Your task to perform on an android device: toggle location history Image 0: 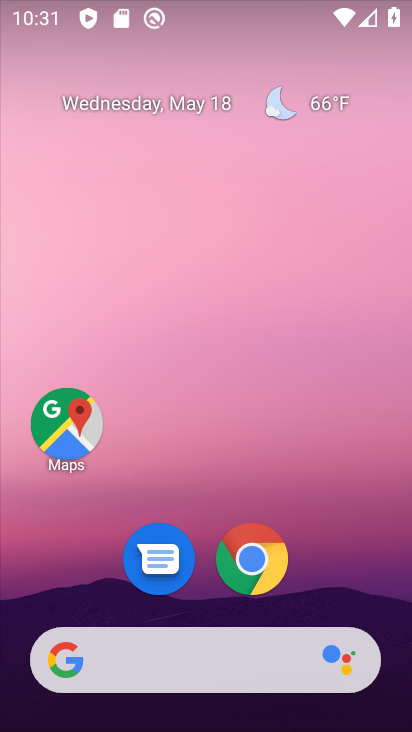
Step 0: drag from (185, 615) to (243, 156)
Your task to perform on an android device: toggle location history Image 1: 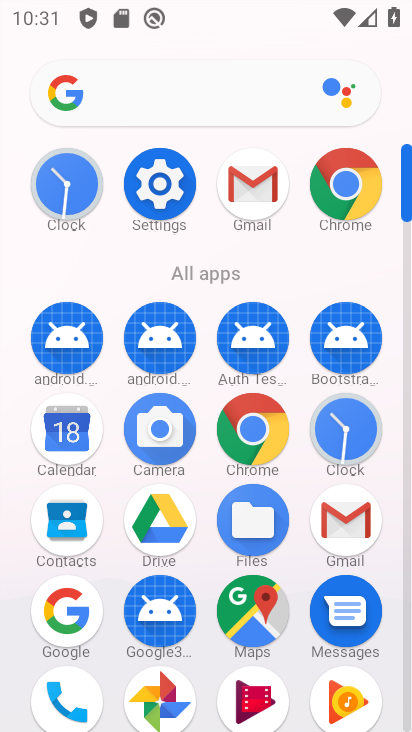
Step 1: click (151, 178)
Your task to perform on an android device: toggle location history Image 2: 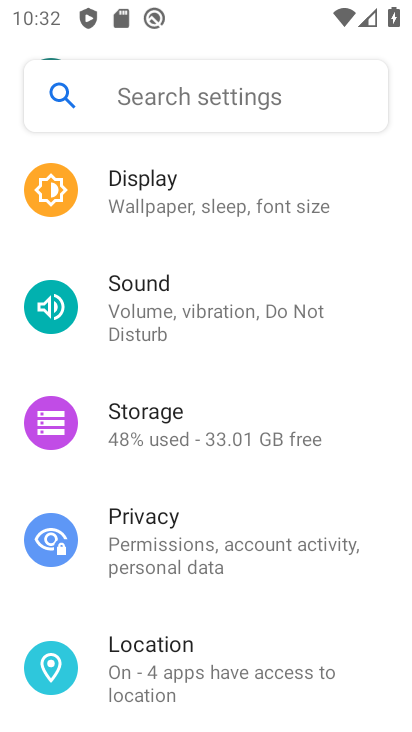
Step 2: click (150, 656)
Your task to perform on an android device: toggle location history Image 3: 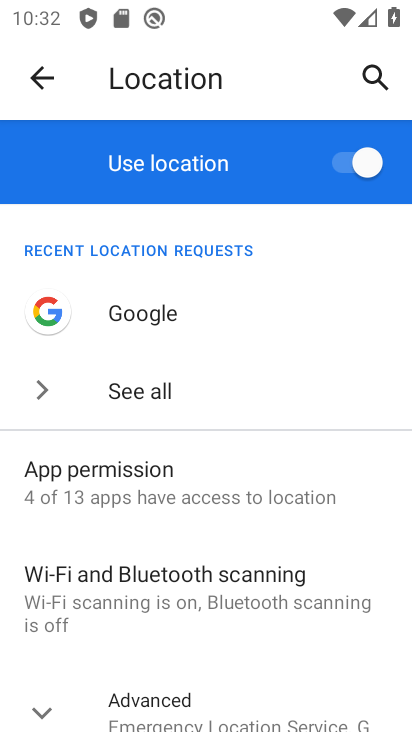
Step 3: drag from (201, 577) to (277, 187)
Your task to perform on an android device: toggle location history Image 4: 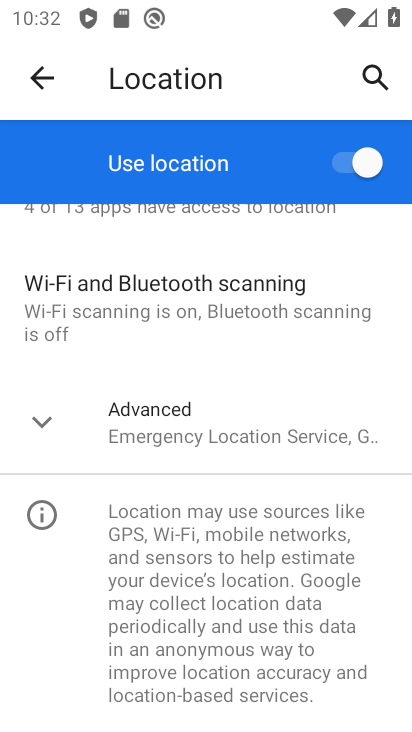
Step 4: click (35, 410)
Your task to perform on an android device: toggle location history Image 5: 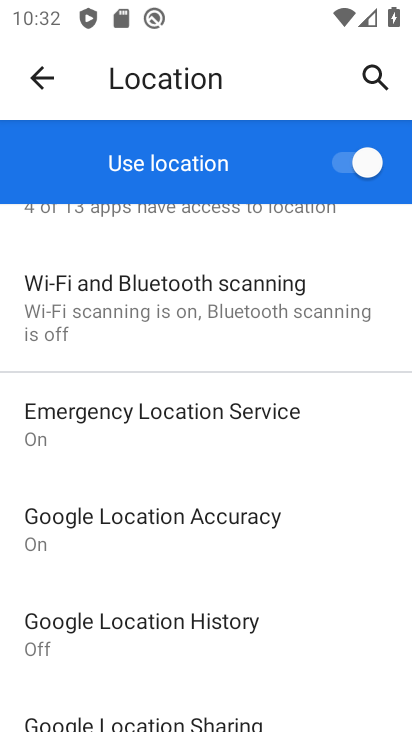
Step 5: click (209, 630)
Your task to perform on an android device: toggle location history Image 6: 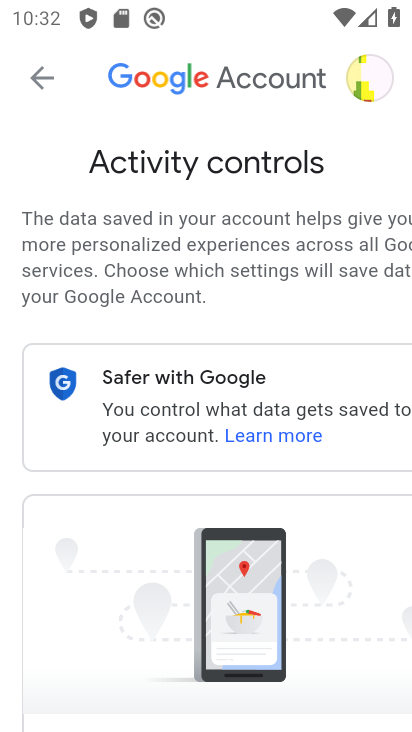
Step 6: drag from (136, 607) to (166, 118)
Your task to perform on an android device: toggle location history Image 7: 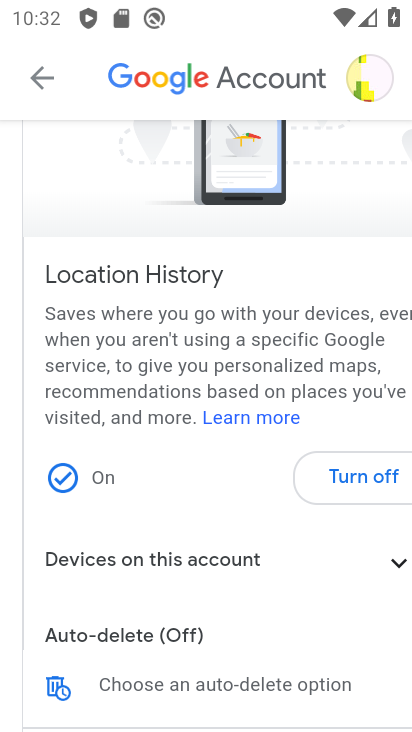
Step 7: click (57, 475)
Your task to perform on an android device: toggle location history Image 8: 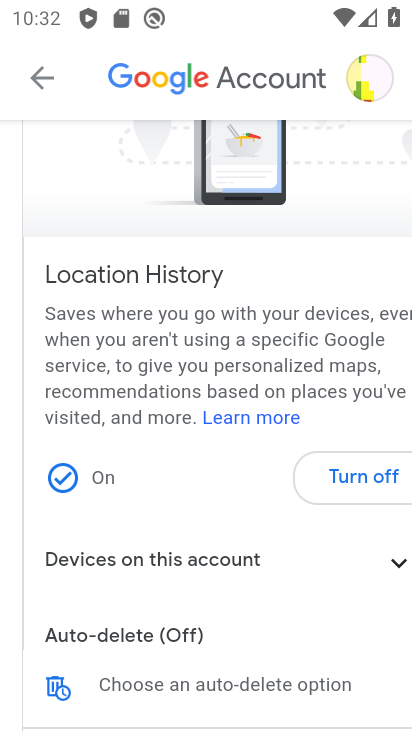
Step 8: click (393, 477)
Your task to perform on an android device: toggle location history Image 9: 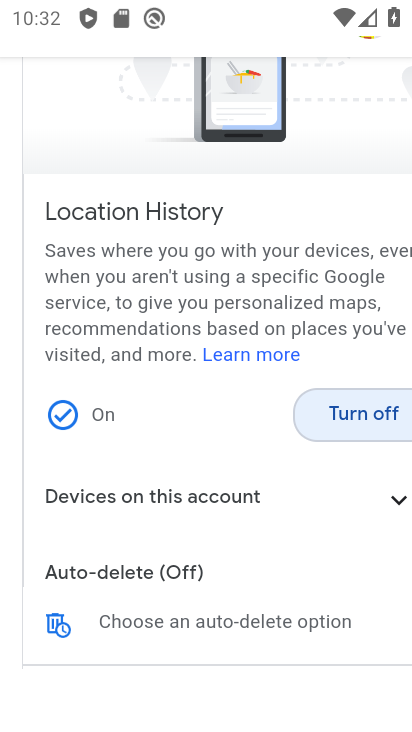
Step 9: task complete